Your task to perform on an android device: Toggle the flashlight Image 0: 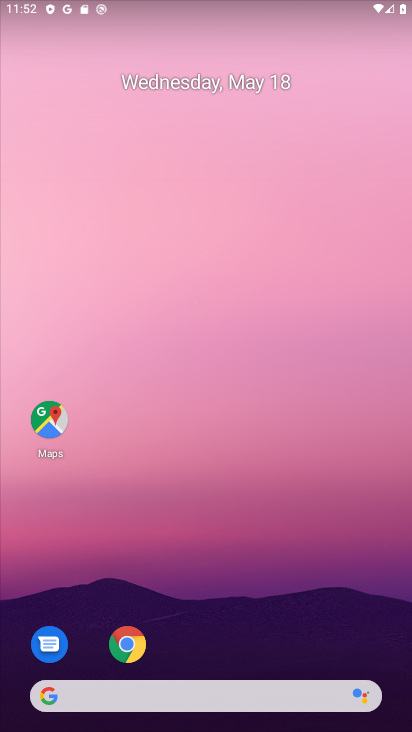
Step 0: drag from (294, 601) to (320, 261)
Your task to perform on an android device: Toggle the flashlight Image 1: 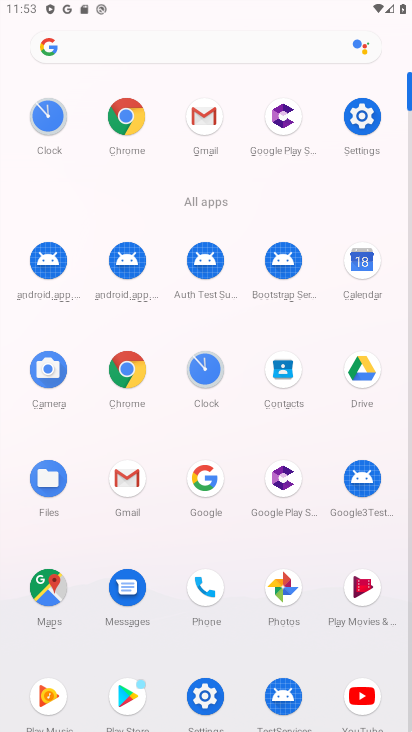
Step 1: click (375, 114)
Your task to perform on an android device: Toggle the flashlight Image 2: 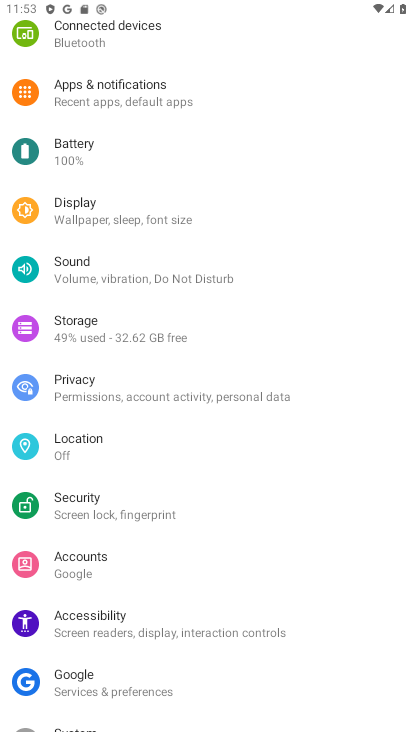
Step 2: drag from (308, 144) to (313, 519)
Your task to perform on an android device: Toggle the flashlight Image 3: 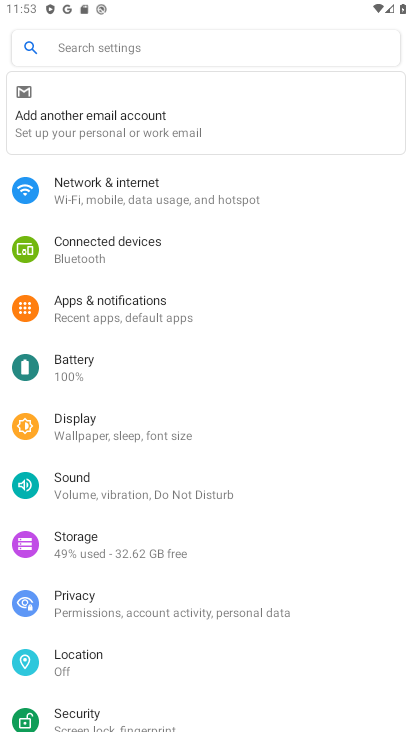
Step 3: click (197, 44)
Your task to perform on an android device: Toggle the flashlight Image 4: 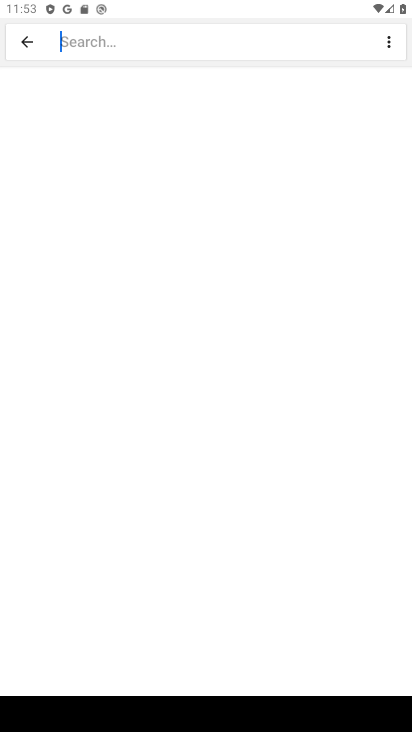
Step 4: type "flashlight"
Your task to perform on an android device: Toggle the flashlight Image 5: 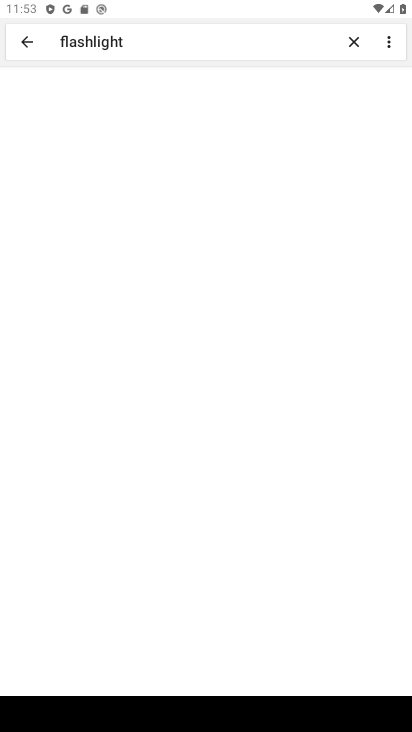
Step 5: click (164, 44)
Your task to perform on an android device: Toggle the flashlight Image 6: 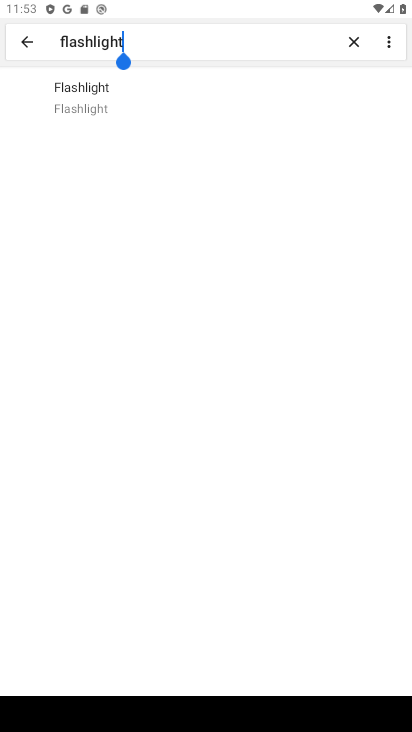
Step 6: click (103, 127)
Your task to perform on an android device: Toggle the flashlight Image 7: 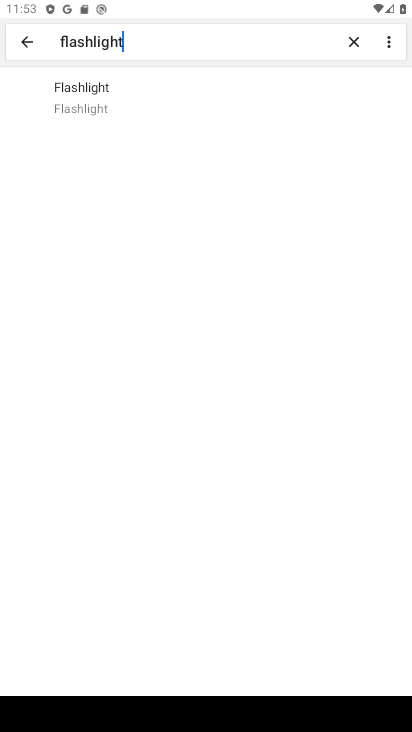
Step 7: task complete